Your task to perform on an android device: Open Reddit.com Image 0: 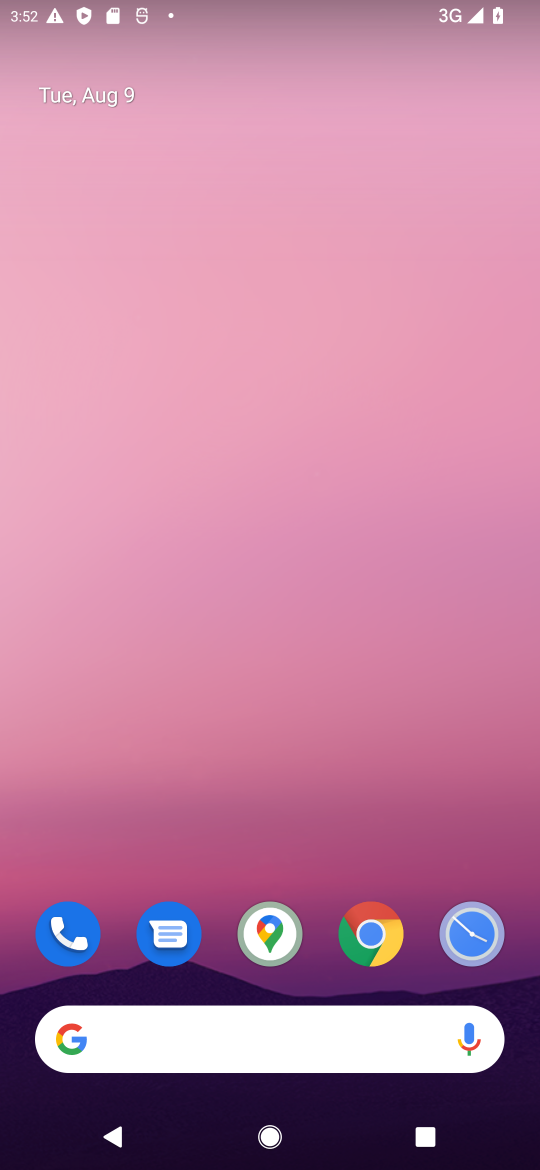
Step 0: drag from (315, 991) to (416, 238)
Your task to perform on an android device: Open Reddit.com Image 1: 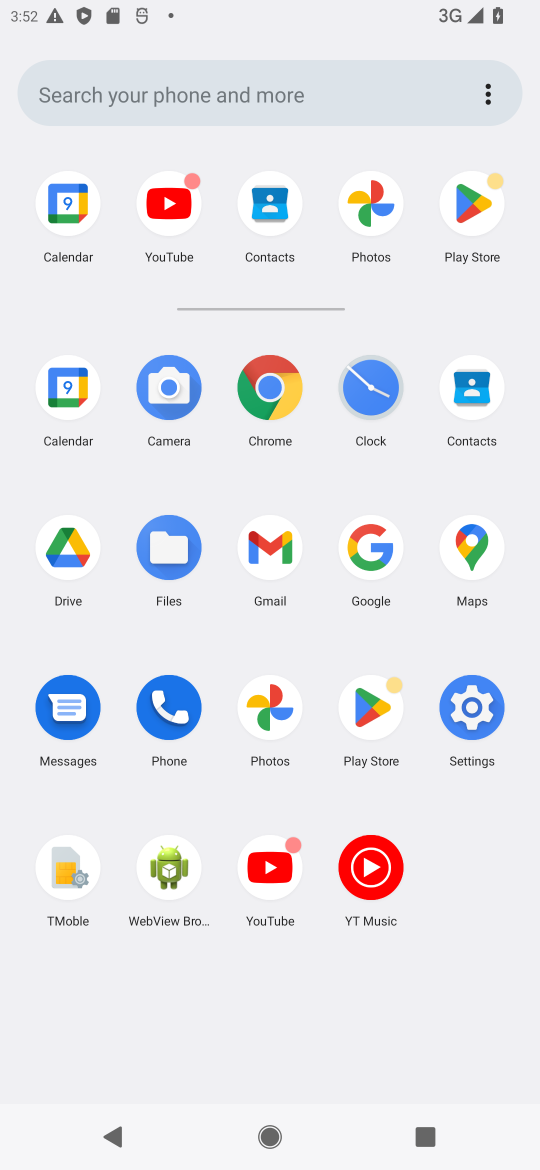
Step 1: click (291, 380)
Your task to perform on an android device: Open Reddit.com Image 2: 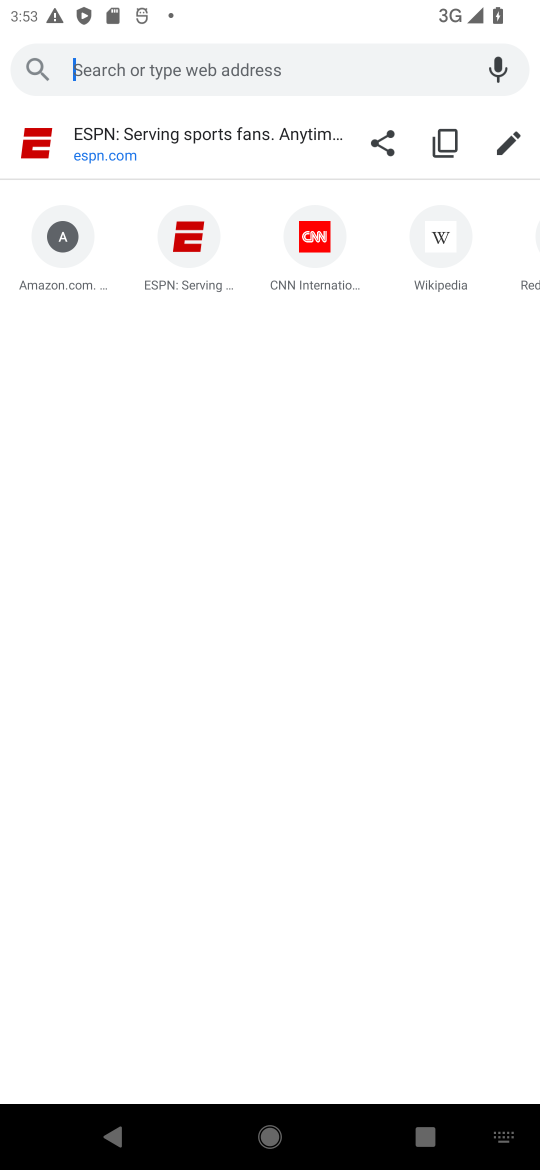
Step 2: click (534, 273)
Your task to perform on an android device: Open Reddit.com Image 3: 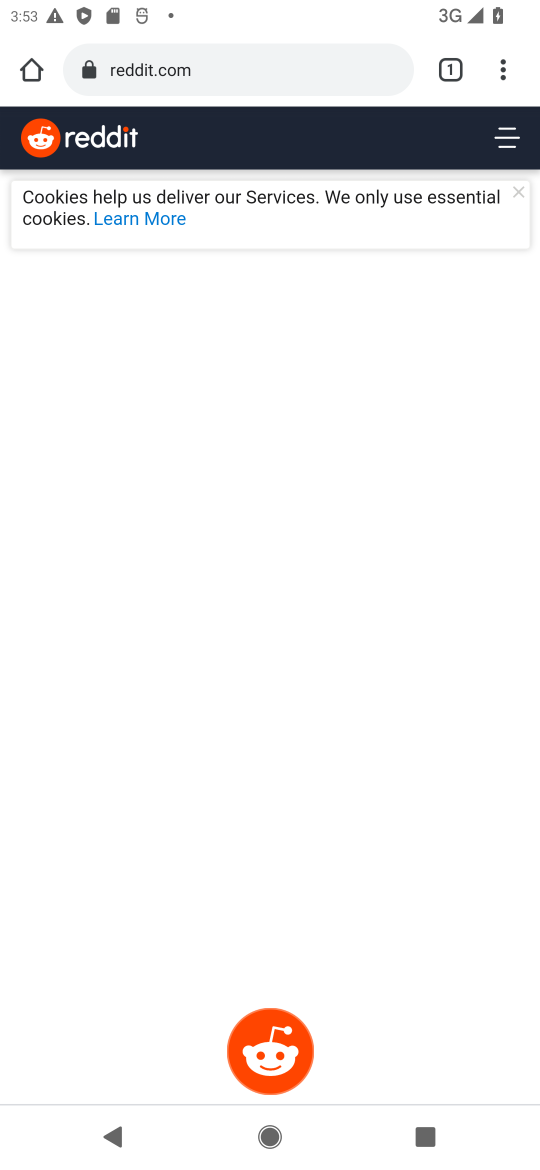
Step 3: task complete